Your task to perform on an android device: Go to CNN.com Image 0: 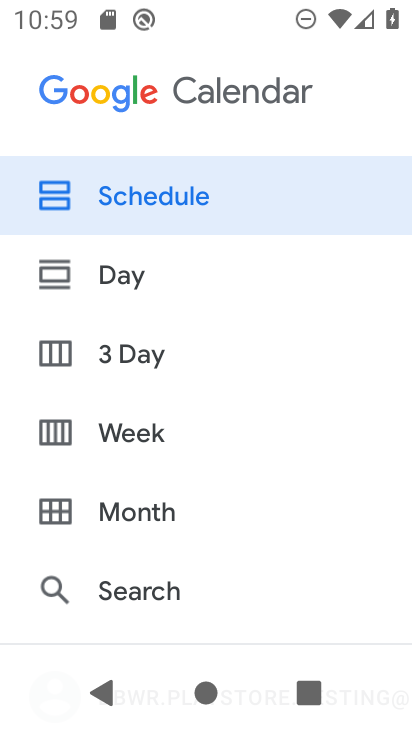
Step 0: press home button
Your task to perform on an android device: Go to CNN.com Image 1: 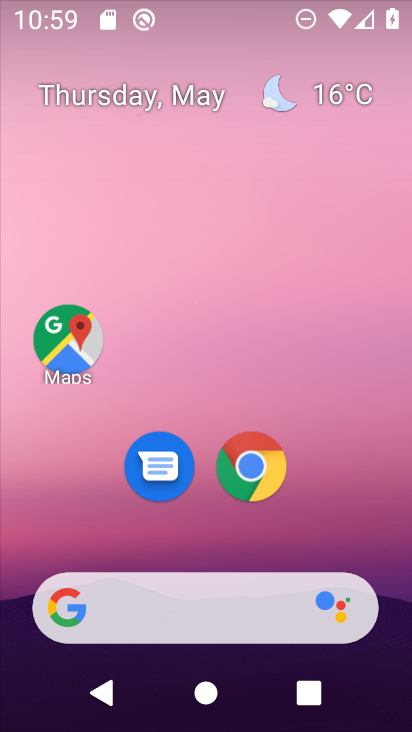
Step 1: click (255, 446)
Your task to perform on an android device: Go to CNN.com Image 2: 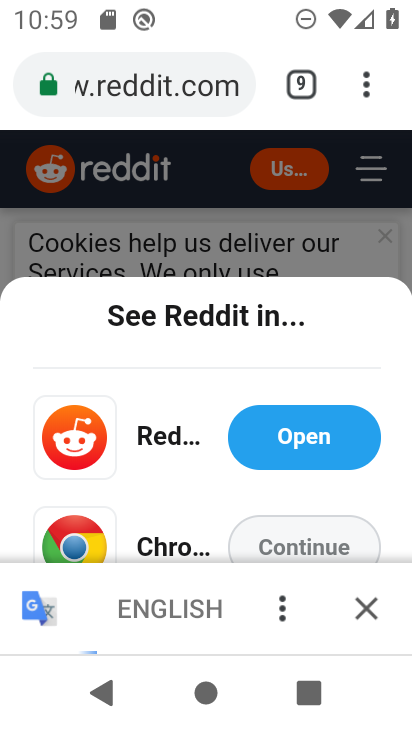
Step 2: click (363, 72)
Your task to perform on an android device: Go to CNN.com Image 3: 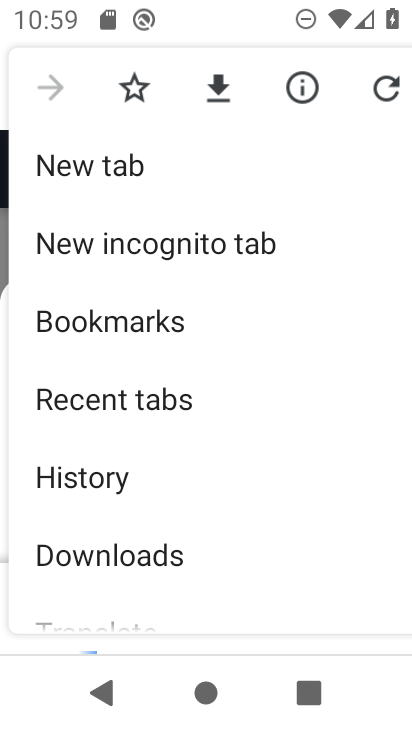
Step 3: click (95, 159)
Your task to perform on an android device: Go to CNN.com Image 4: 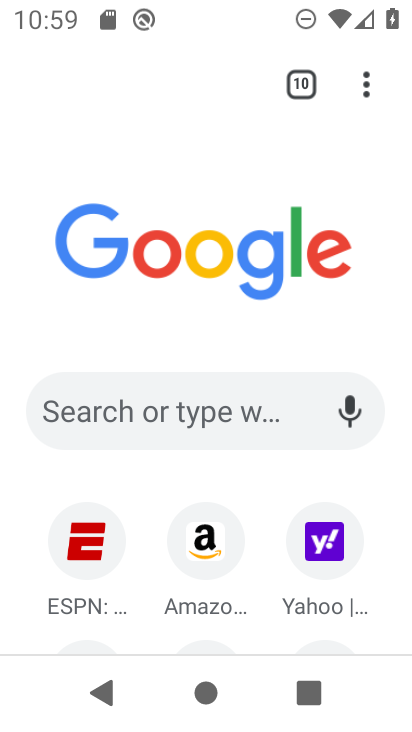
Step 4: click (203, 399)
Your task to perform on an android device: Go to CNN.com Image 5: 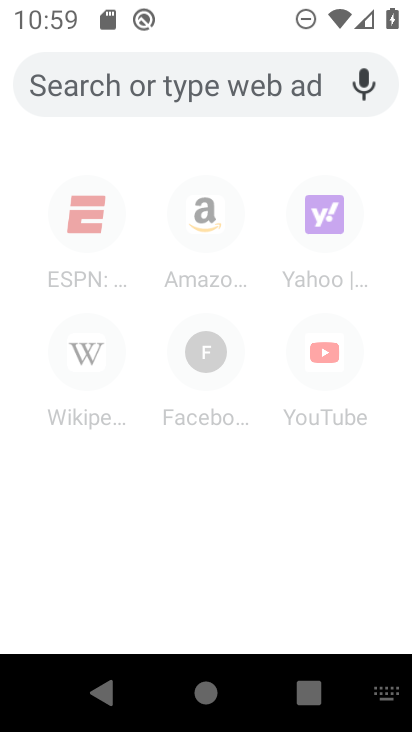
Step 5: type "CNN.com"
Your task to perform on an android device: Go to CNN.com Image 6: 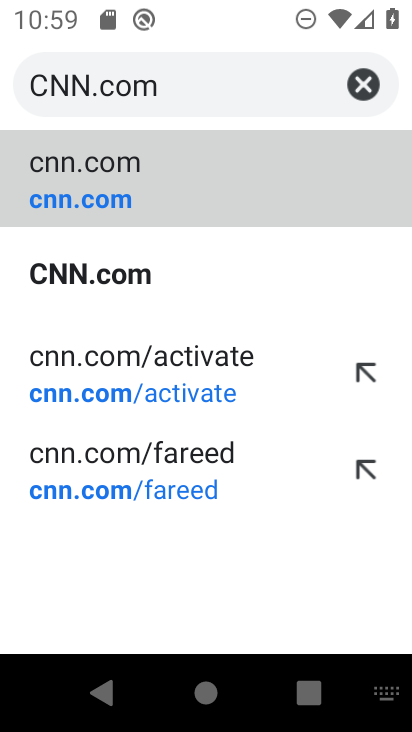
Step 6: click (123, 151)
Your task to perform on an android device: Go to CNN.com Image 7: 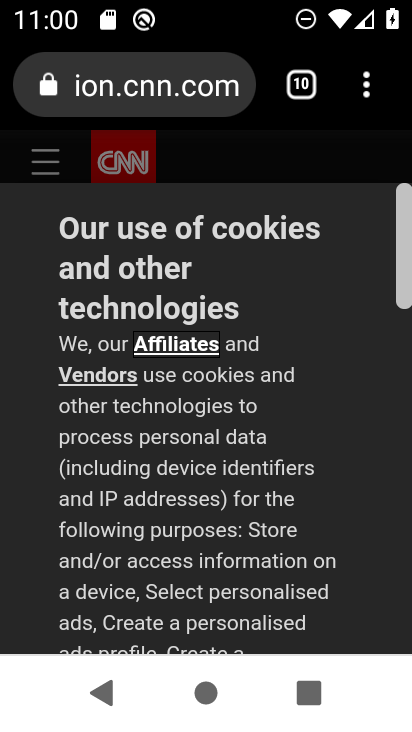
Step 7: task complete